Your task to perform on an android device: toggle notification dots Image 0: 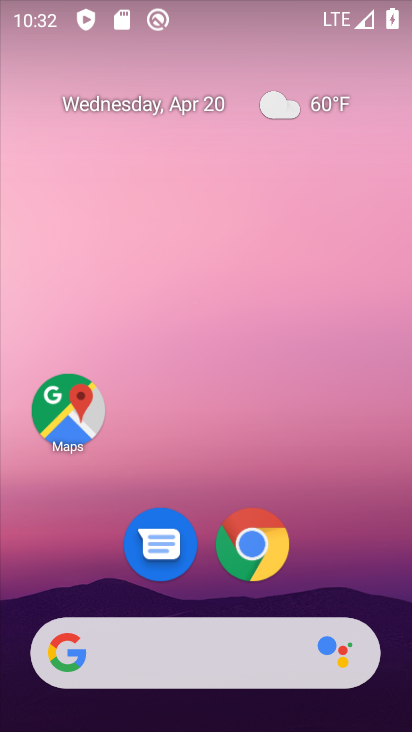
Step 0: drag from (342, 500) to (309, 208)
Your task to perform on an android device: toggle notification dots Image 1: 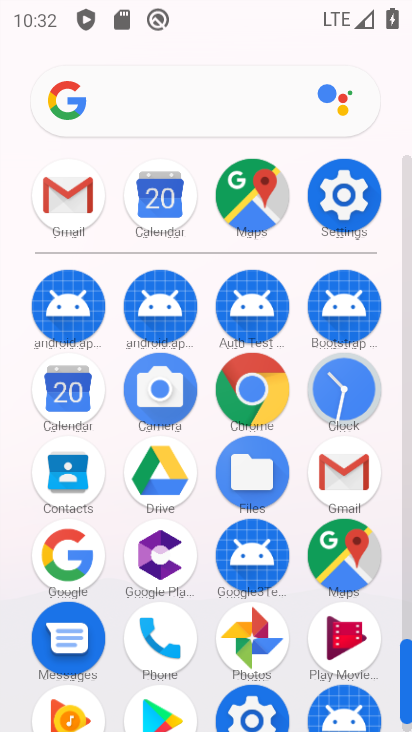
Step 1: click (351, 206)
Your task to perform on an android device: toggle notification dots Image 2: 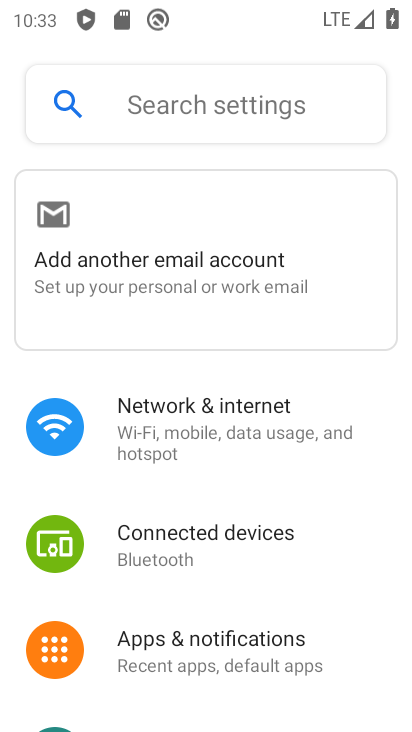
Step 2: click (229, 646)
Your task to perform on an android device: toggle notification dots Image 3: 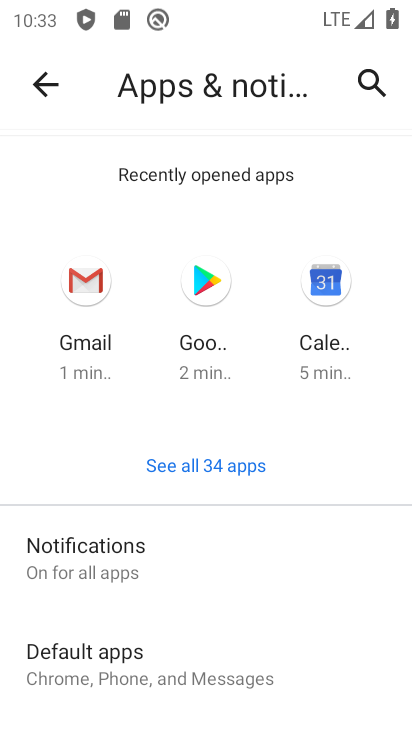
Step 3: click (241, 552)
Your task to perform on an android device: toggle notification dots Image 4: 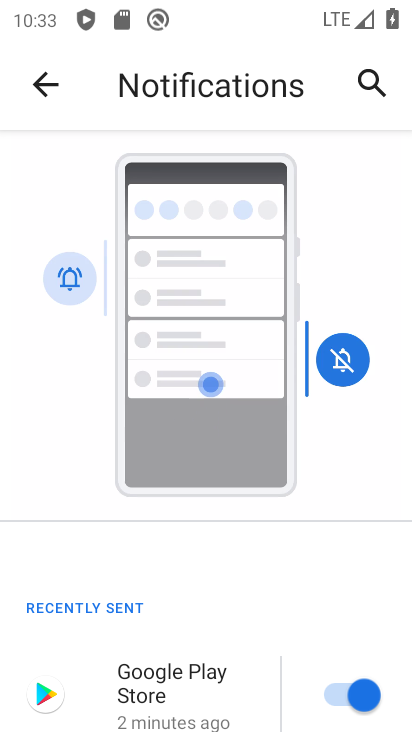
Step 4: drag from (260, 616) to (244, 271)
Your task to perform on an android device: toggle notification dots Image 5: 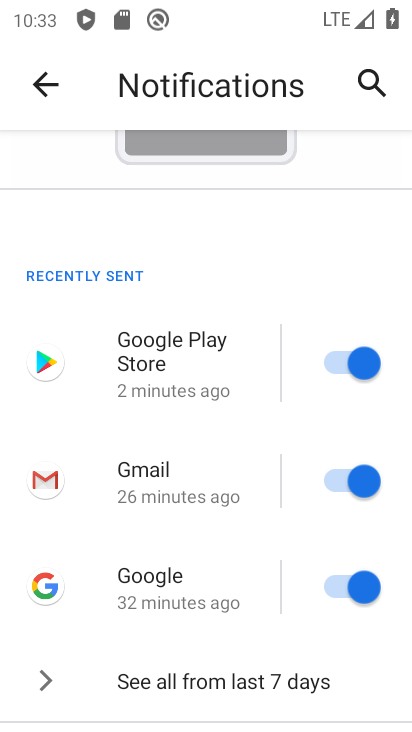
Step 5: drag from (269, 563) to (239, 184)
Your task to perform on an android device: toggle notification dots Image 6: 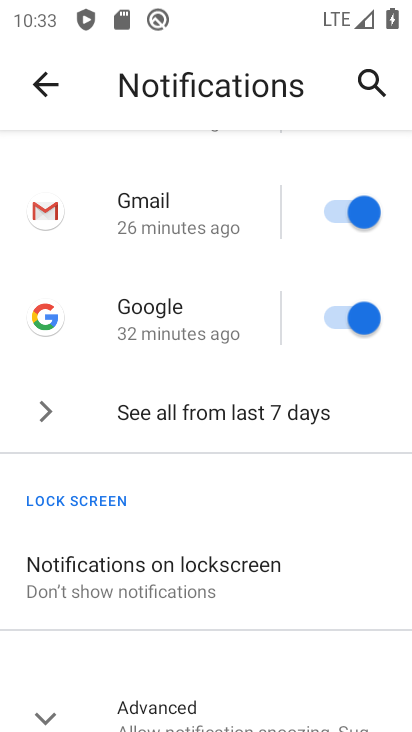
Step 6: drag from (276, 619) to (265, 266)
Your task to perform on an android device: toggle notification dots Image 7: 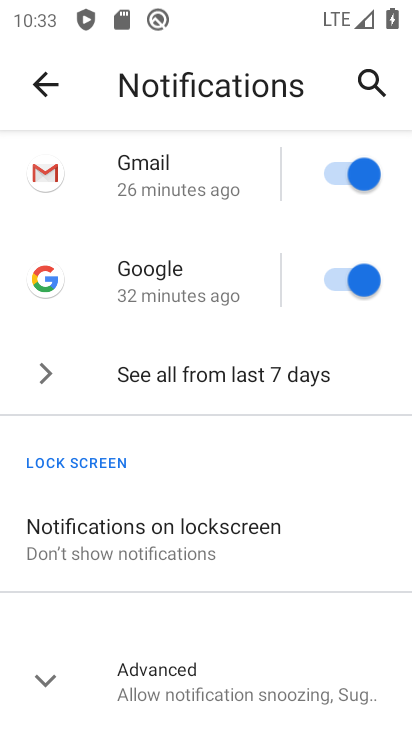
Step 7: click (234, 674)
Your task to perform on an android device: toggle notification dots Image 8: 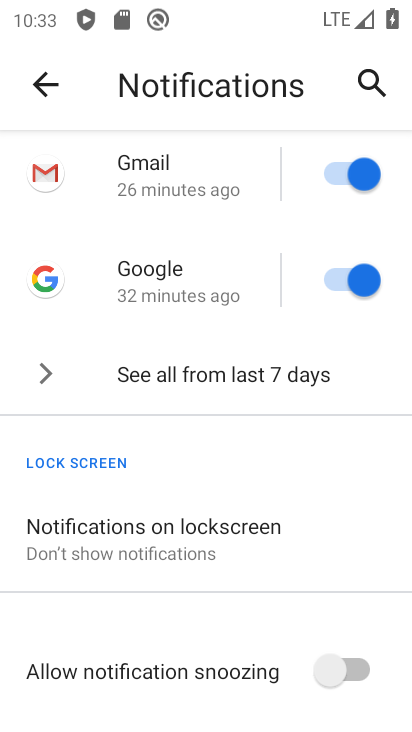
Step 8: drag from (234, 674) to (237, 410)
Your task to perform on an android device: toggle notification dots Image 9: 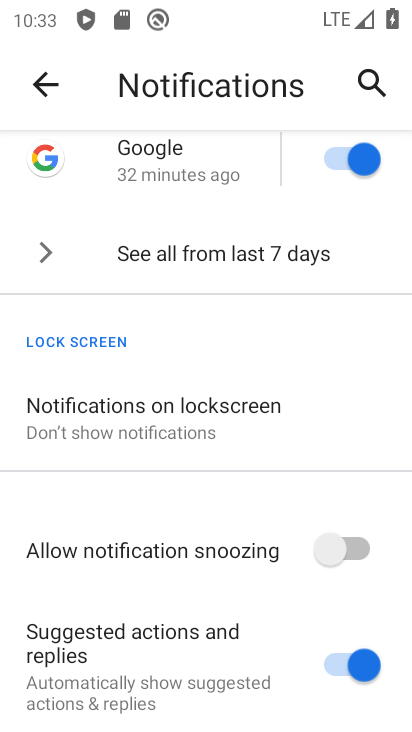
Step 9: drag from (250, 705) to (224, 394)
Your task to perform on an android device: toggle notification dots Image 10: 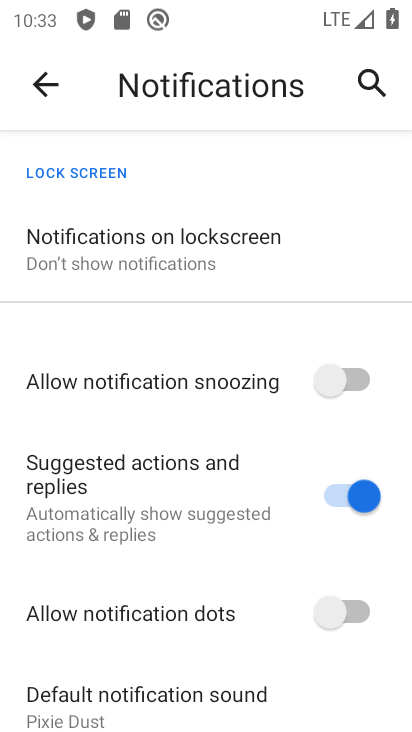
Step 10: click (358, 612)
Your task to perform on an android device: toggle notification dots Image 11: 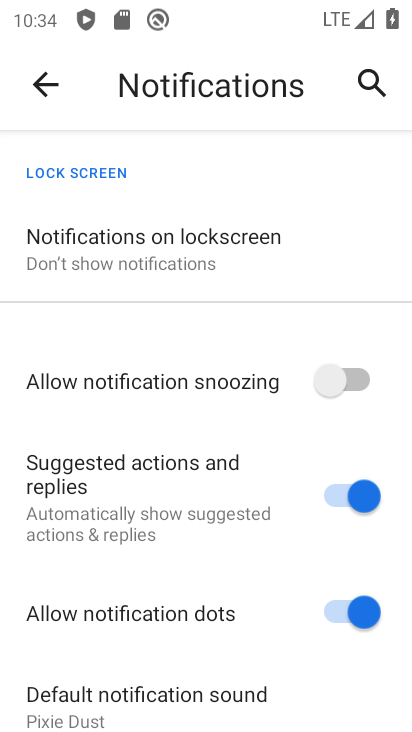
Step 11: task complete